Your task to perform on an android device: delete browsing data in the chrome app Image 0: 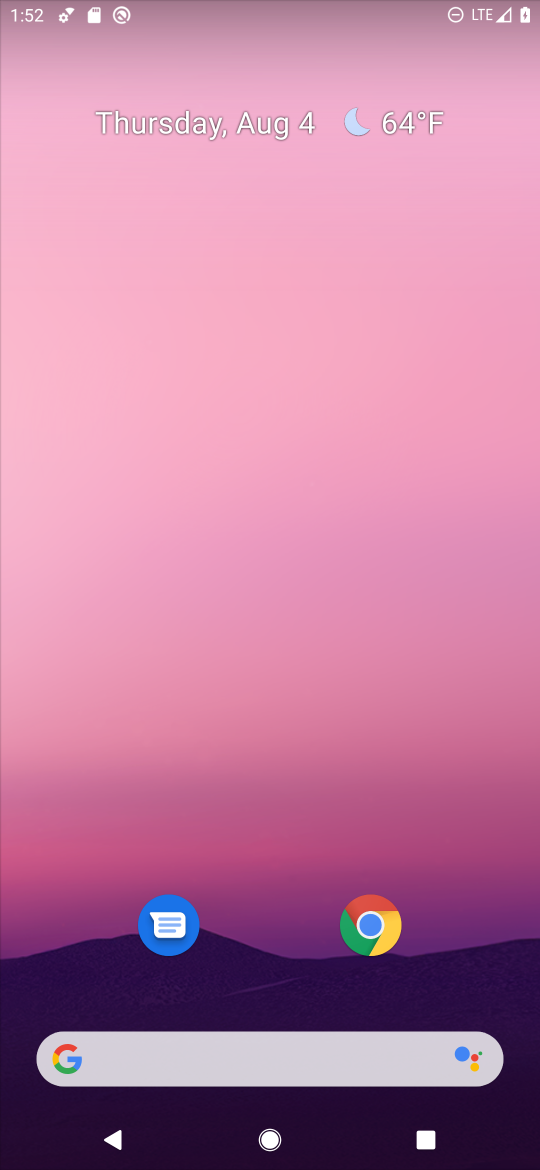
Step 0: click (358, 945)
Your task to perform on an android device: delete browsing data in the chrome app Image 1: 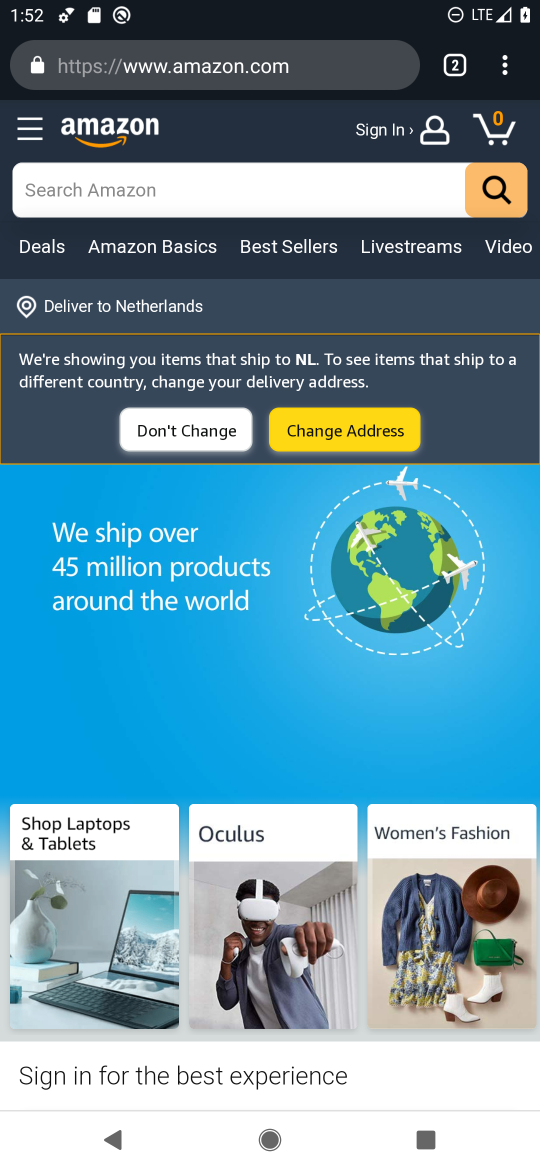
Step 1: click (528, 77)
Your task to perform on an android device: delete browsing data in the chrome app Image 2: 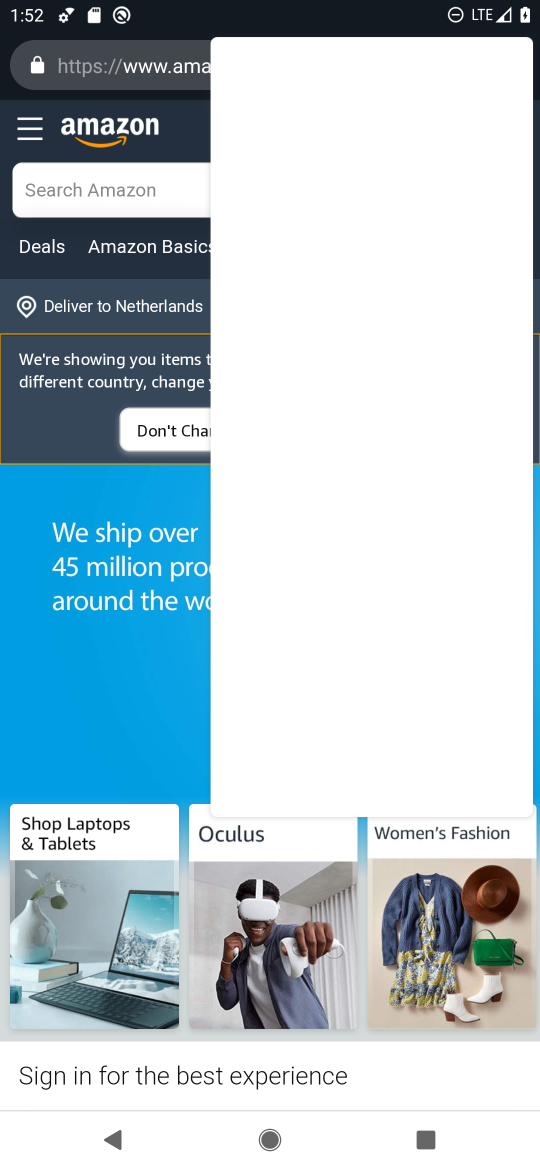
Step 2: click (504, 70)
Your task to perform on an android device: delete browsing data in the chrome app Image 3: 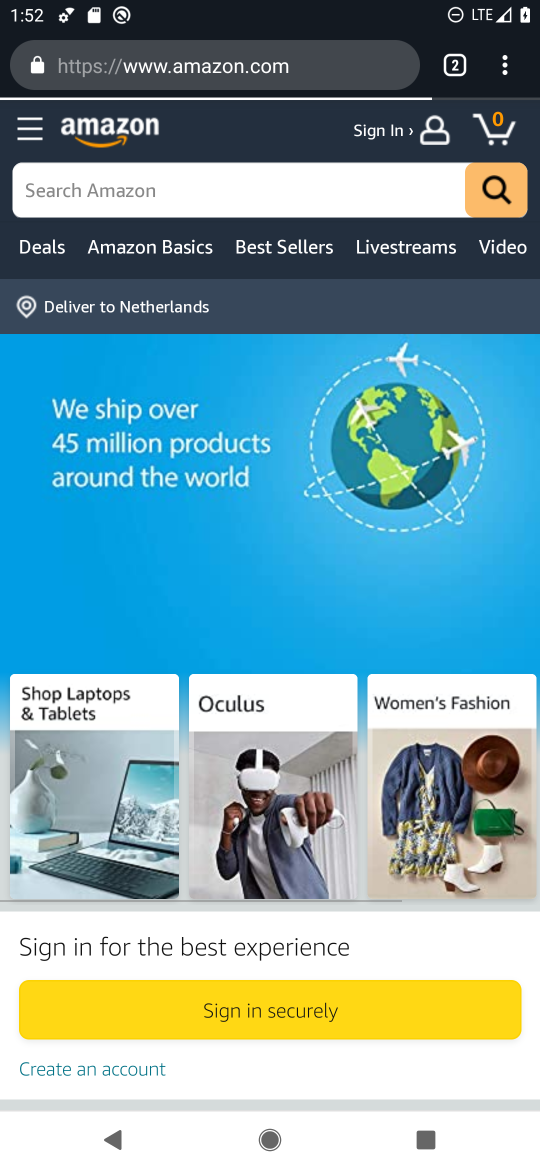
Step 3: click (506, 64)
Your task to perform on an android device: delete browsing data in the chrome app Image 4: 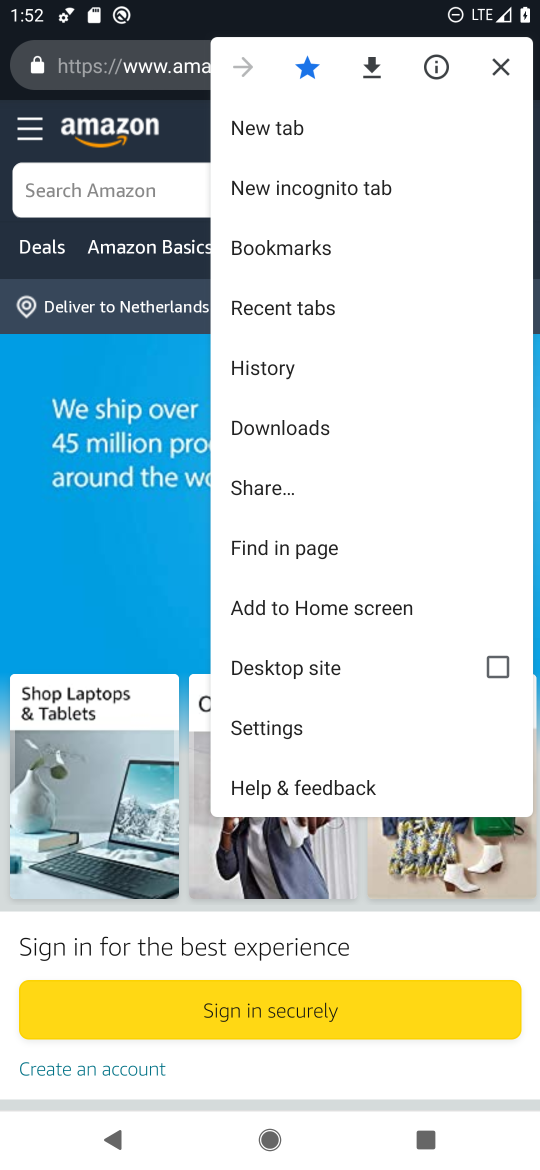
Step 4: click (302, 370)
Your task to perform on an android device: delete browsing data in the chrome app Image 5: 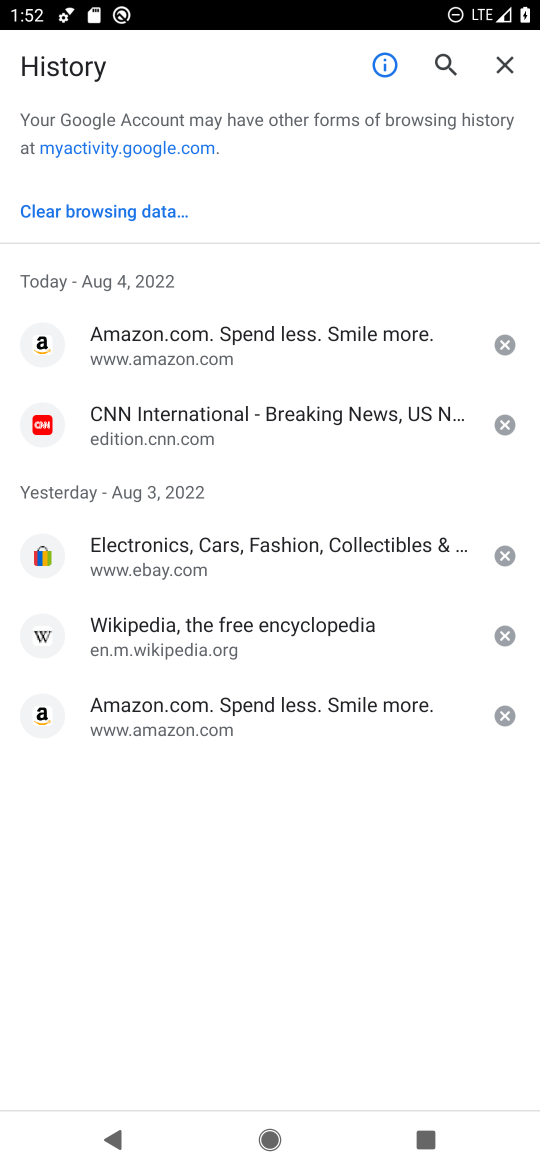
Step 5: click (139, 203)
Your task to perform on an android device: delete browsing data in the chrome app Image 6: 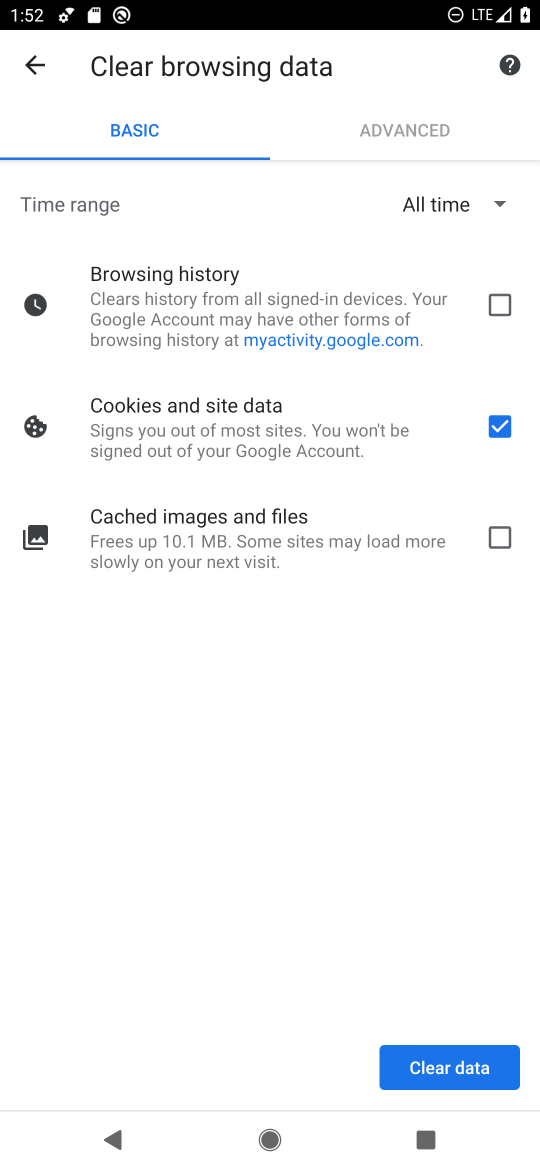
Step 6: click (501, 298)
Your task to perform on an android device: delete browsing data in the chrome app Image 7: 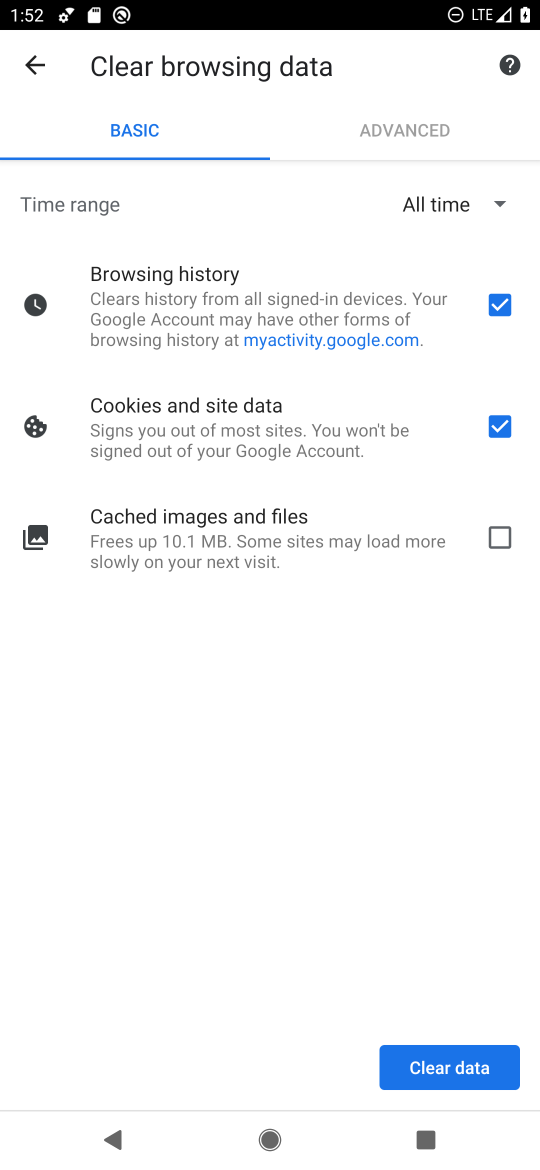
Step 7: click (458, 1072)
Your task to perform on an android device: delete browsing data in the chrome app Image 8: 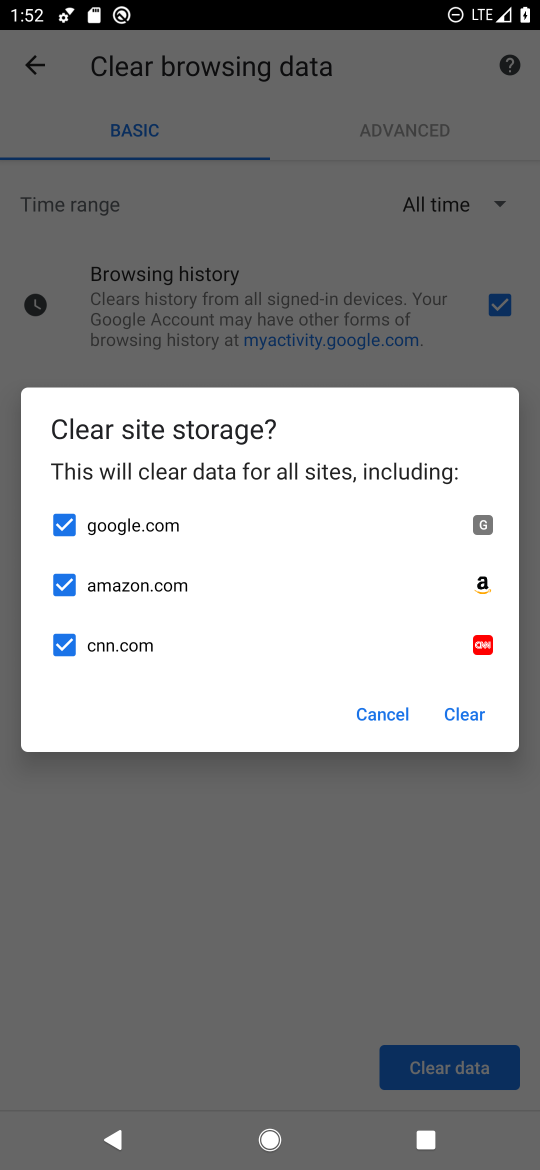
Step 8: click (127, 525)
Your task to perform on an android device: delete browsing data in the chrome app Image 9: 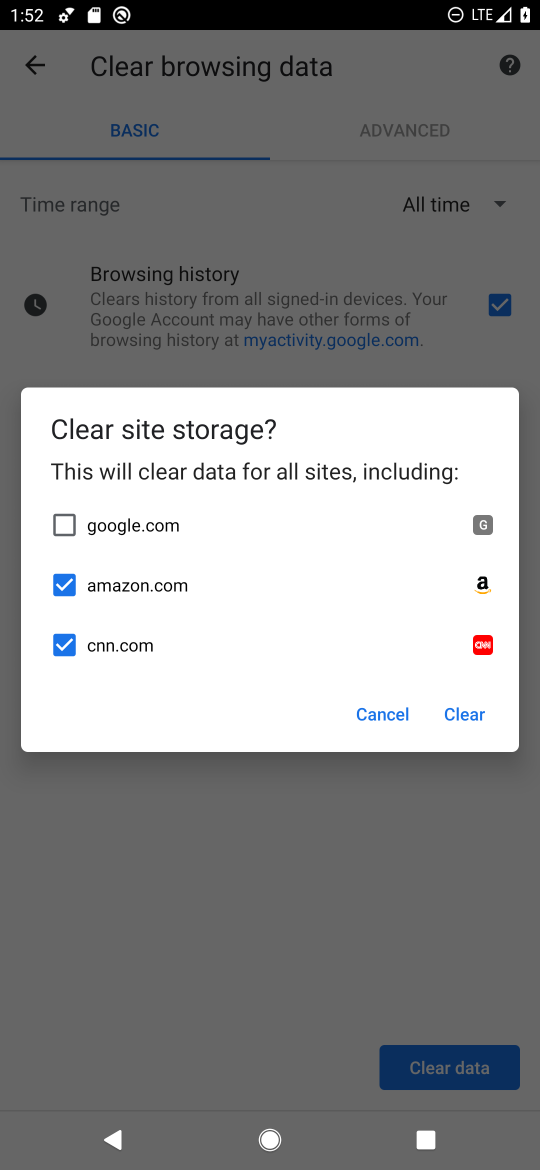
Step 9: click (110, 589)
Your task to perform on an android device: delete browsing data in the chrome app Image 10: 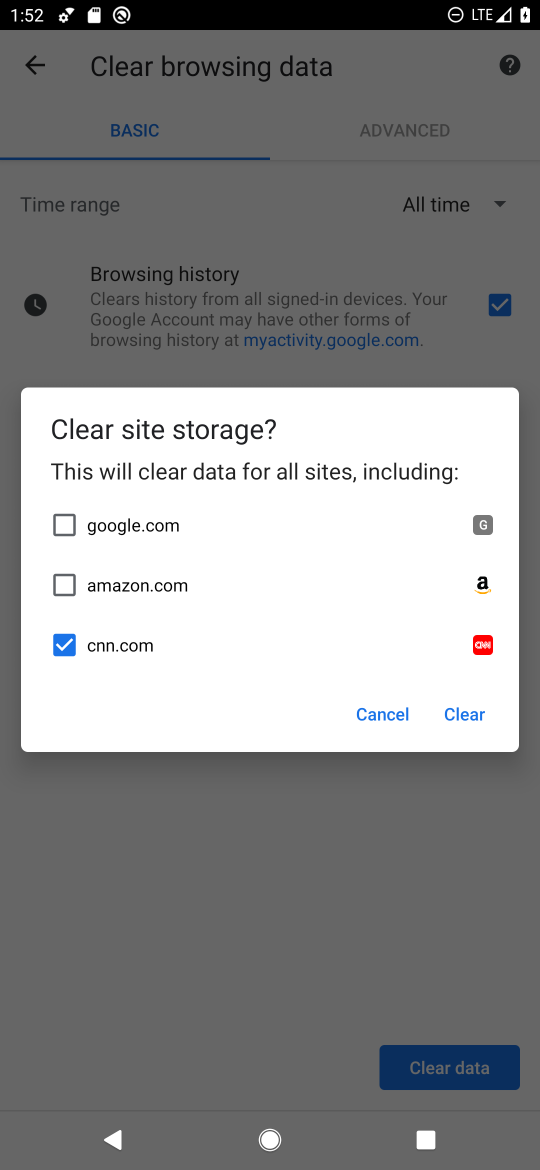
Step 10: click (108, 648)
Your task to perform on an android device: delete browsing data in the chrome app Image 11: 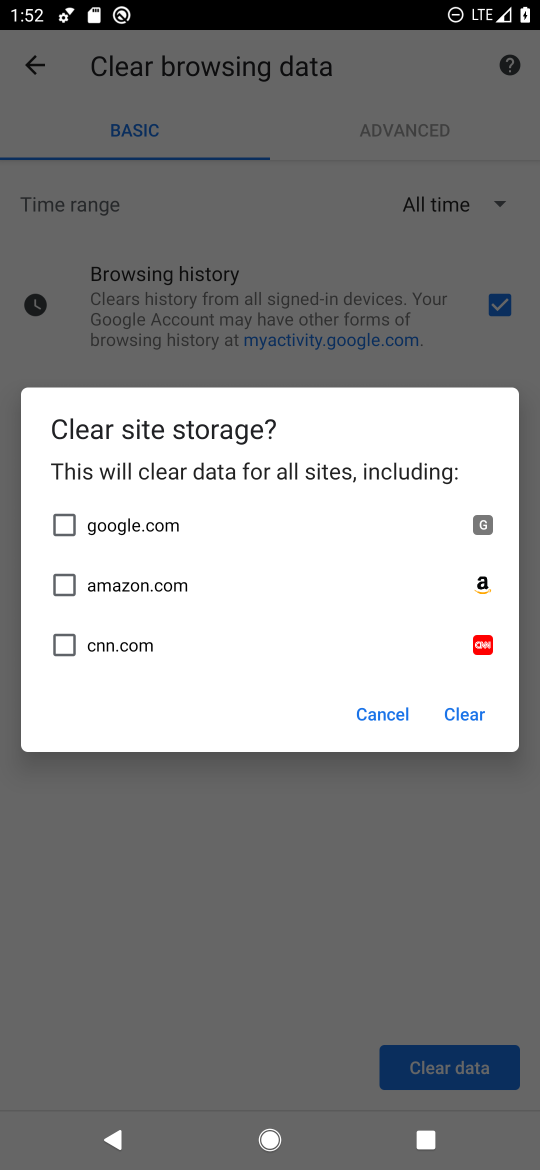
Step 11: click (455, 715)
Your task to perform on an android device: delete browsing data in the chrome app Image 12: 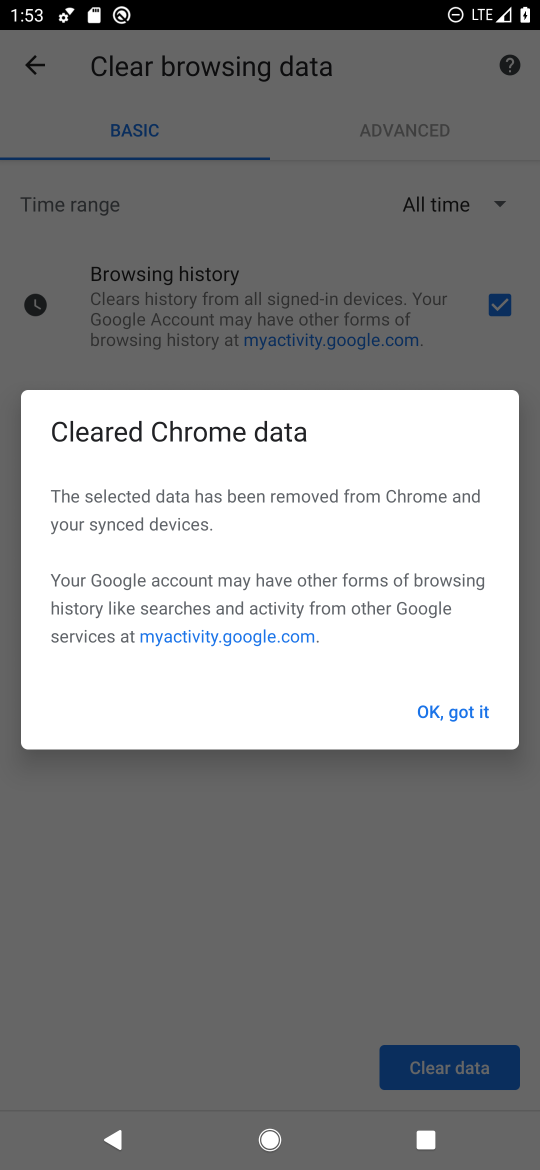
Step 12: click (455, 715)
Your task to perform on an android device: delete browsing data in the chrome app Image 13: 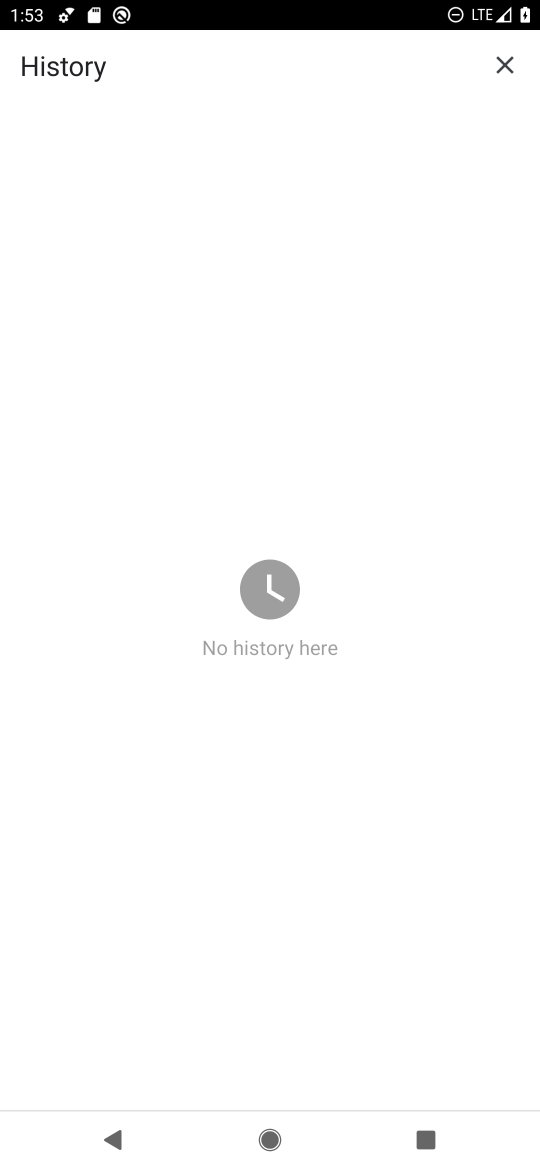
Step 13: task complete